Your task to perform on an android device: Find coffee shops on Maps Image 0: 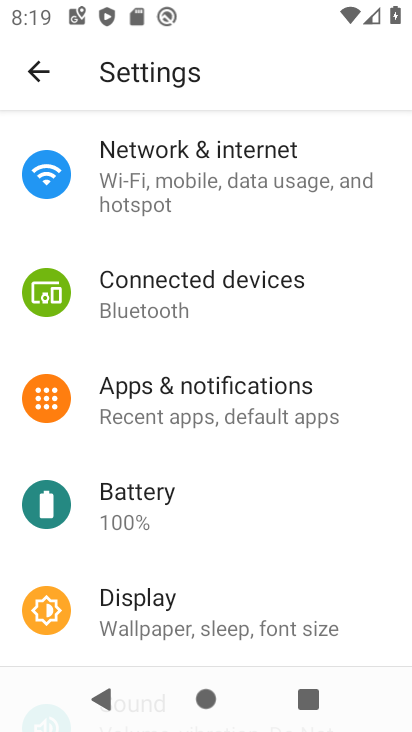
Step 0: press home button
Your task to perform on an android device: Find coffee shops on Maps Image 1: 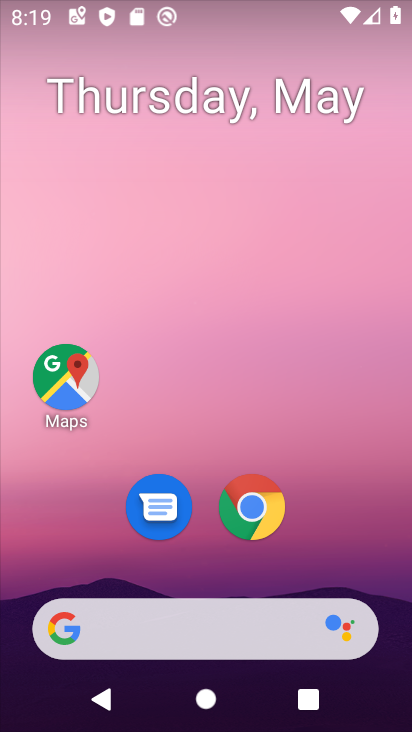
Step 1: drag from (354, 543) to (348, 71)
Your task to perform on an android device: Find coffee shops on Maps Image 2: 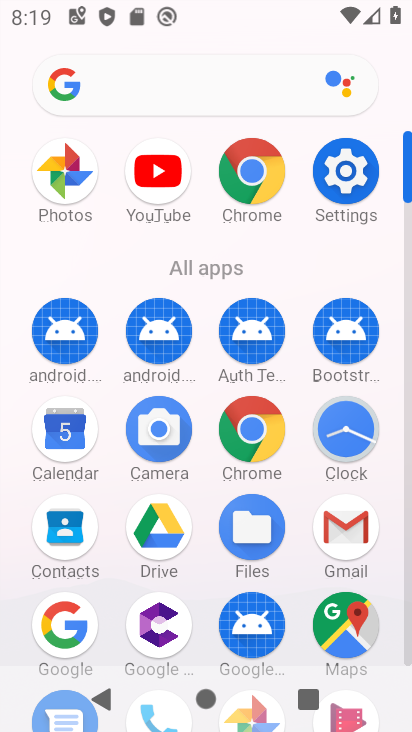
Step 2: click (331, 619)
Your task to perform on an android device: Find coffee shops on Maps Image 3: 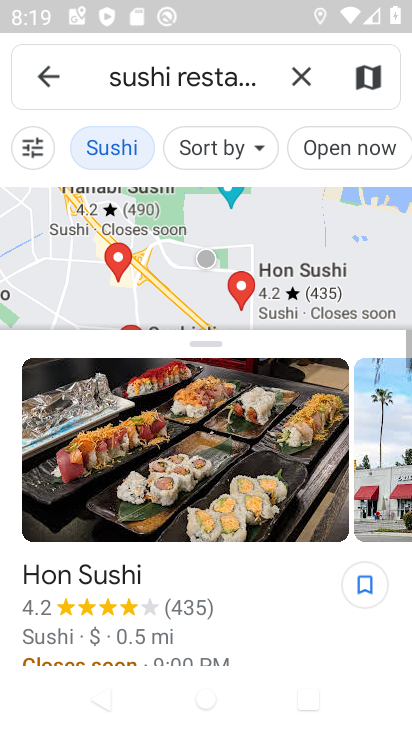
Step 3: click (297, 65)
Your task to perform on an android device: Find coffee shops on Maps Image 4: 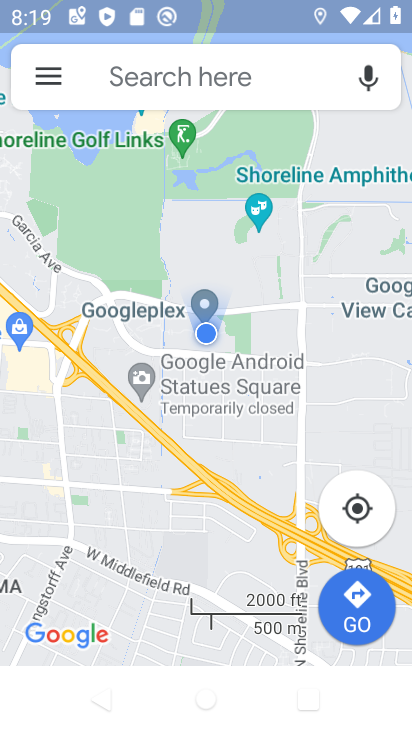
Step 4: click (207, 71)
Your task to perform on an android device: Find coffee shops on Maps Image 5: 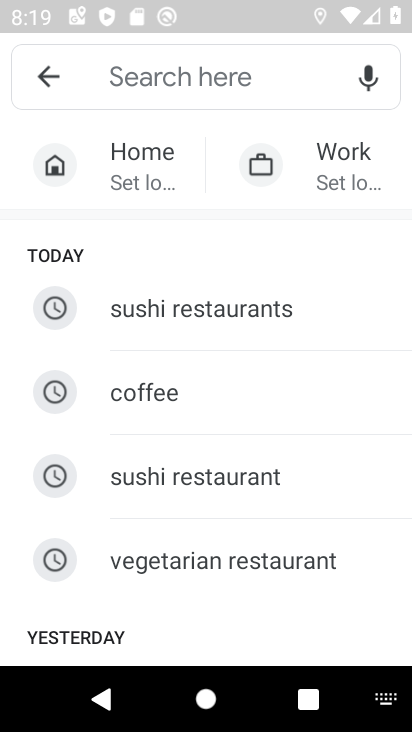
Step 5: type "coffee shops"
Your task to perform on an android device: Find coffee shops on Maps Image 6: 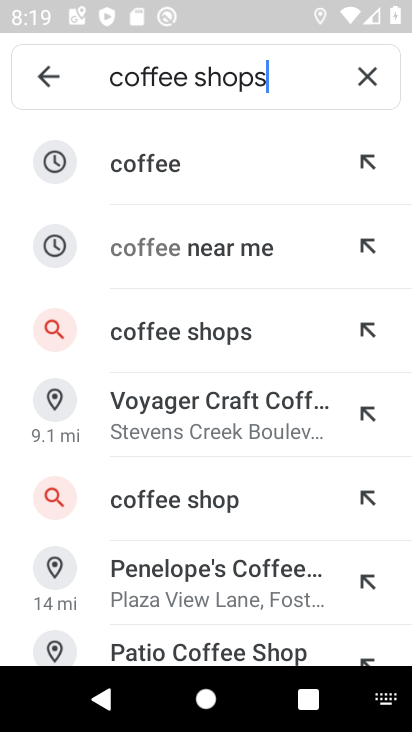
Step 6: click (161, 342)
Your task to perform on an android device: Find coffee shops on Maps Image 7: 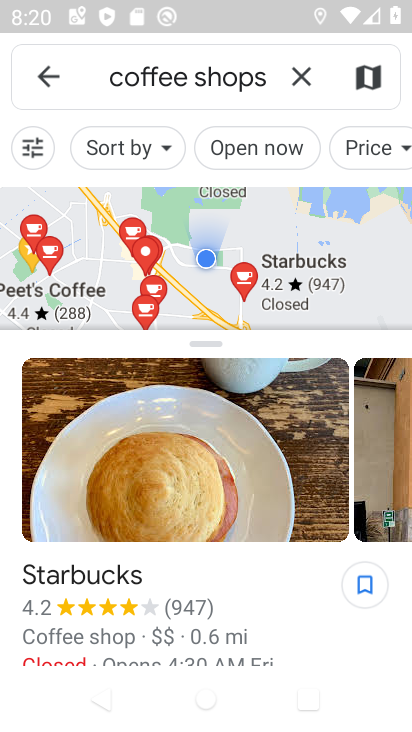
Step 7: task complete